Your task to perform on an android device: toggle translation in the chrome app Image 0: 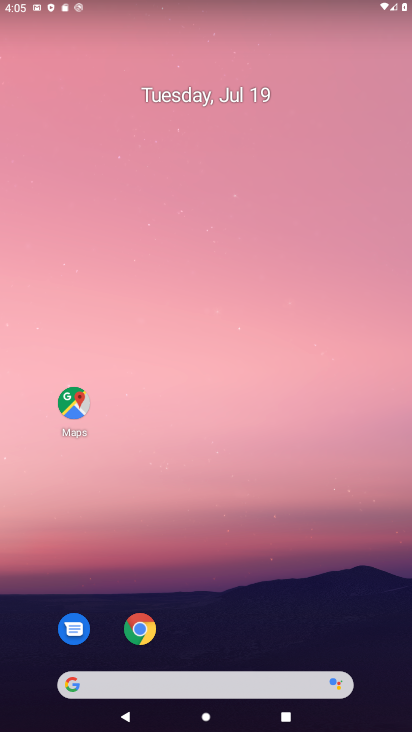
Step 0: drag from (144, 190) to (180, 155)
Your task to perform on an android device: toggle translation in the chrome app Image 1: 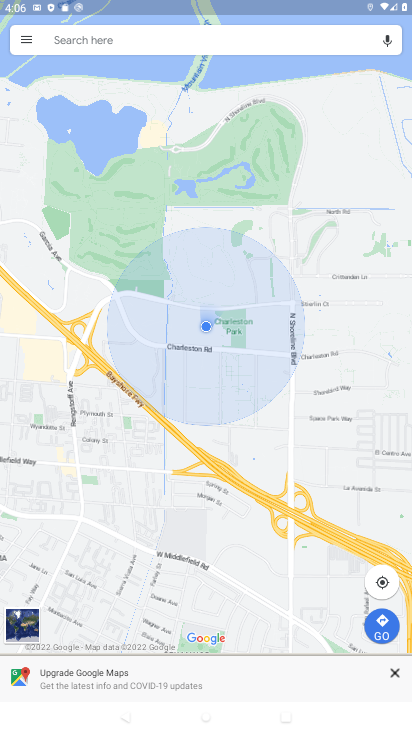
Step 1: press back button
Your task to perform on an android device: toggle translation in the chrome app Image 2: 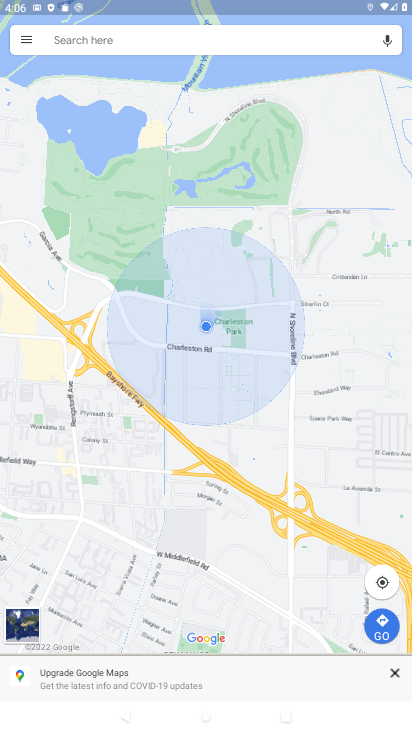
Step 2: press back button
Your task to perform on an android device: toggle translation in the chrome app Image 3: 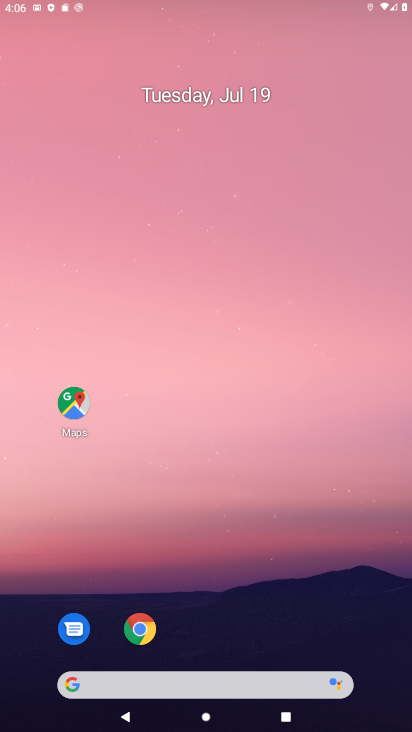
Step 3: press home button
Your task to perform on an android device: toggle translation in the chrome app Image 4: 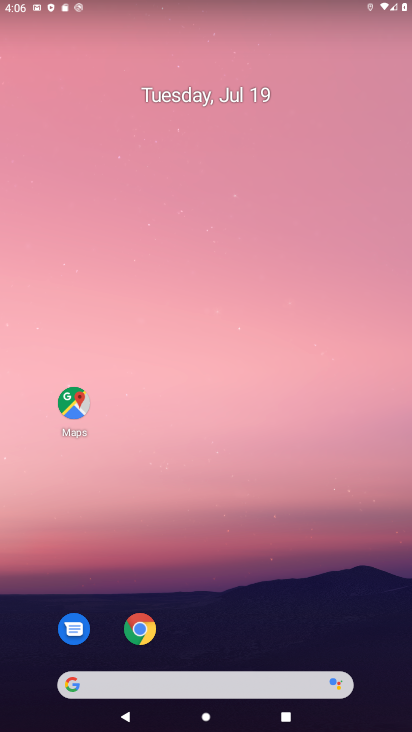
Step 4: press home button
Your task to perform on an android device: toggle translation in the chrome app Image 5: 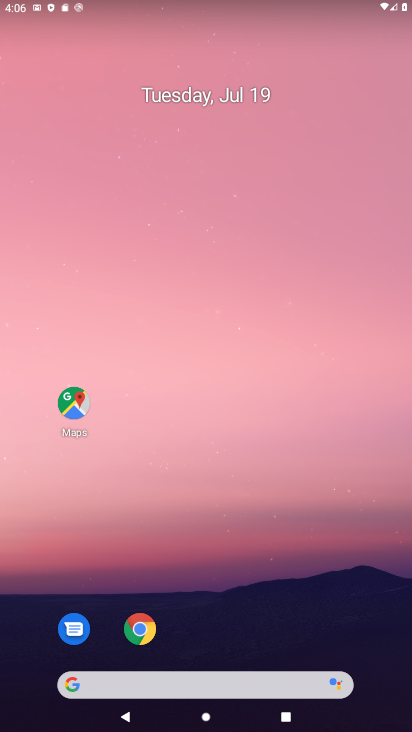
Step 5: drag from (198, 662) to (104, 187)
Your task to perform on an android device: toggle translation in the chrome app Image 6: 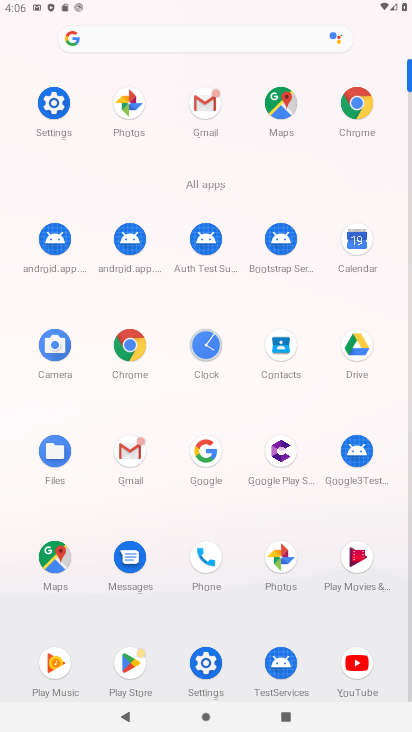
Step 6: click (352, 117)
Your task to perform on an android device: toggle translation in the chrome app Image 7: 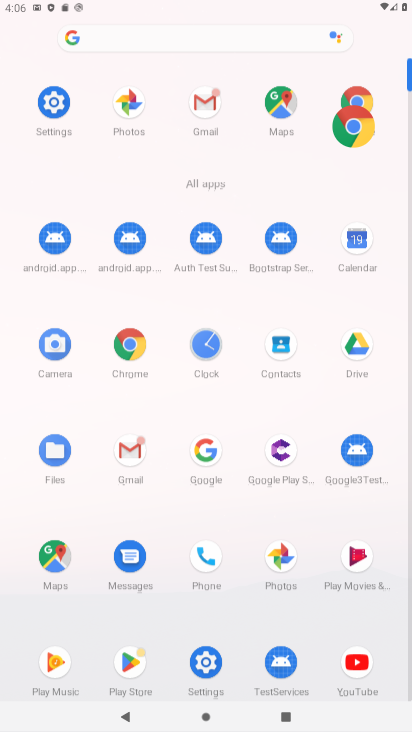
Step 7: click (349, 113)
Your task to perform on an android device: toggle translation in the chrome app Image 8: 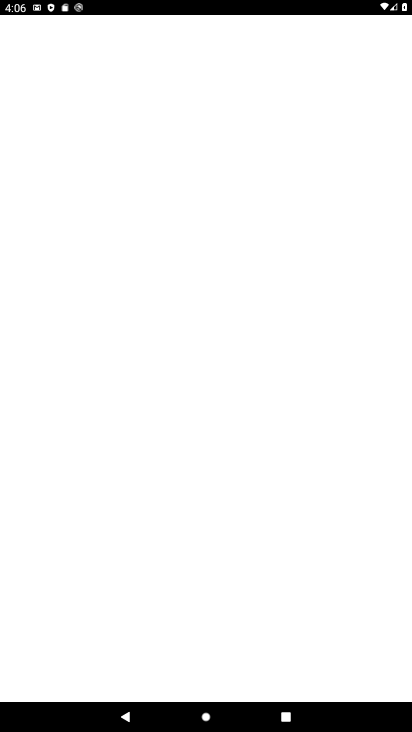
Step 8: click (349, 113)
Your task to perform on an android device: toggle translation in the chrome app Image 9: 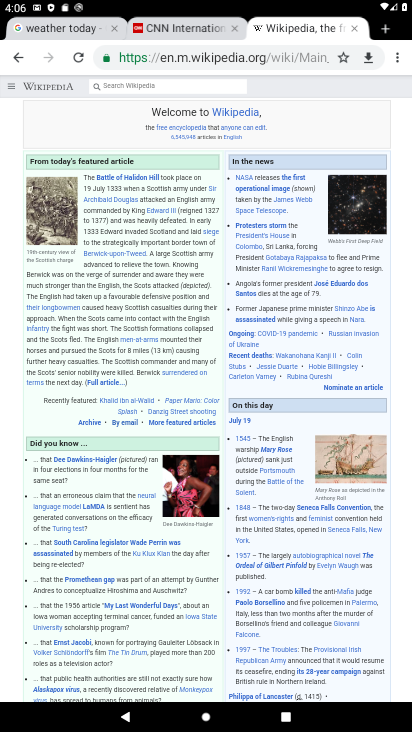
Step 9: drag from (393, 56) to (276, 381)
Your task to perform on an android device: toggle translation in the chrome app Image 10: 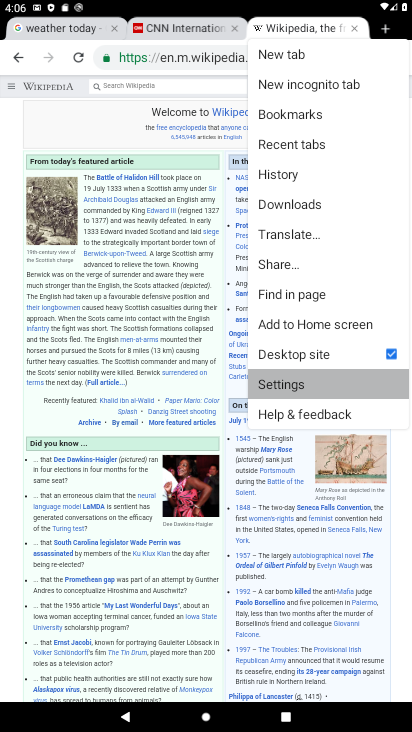
Step 10: click (276, 381)
Your task to perform on an android device: toggle translation in the chrome app Image 11: 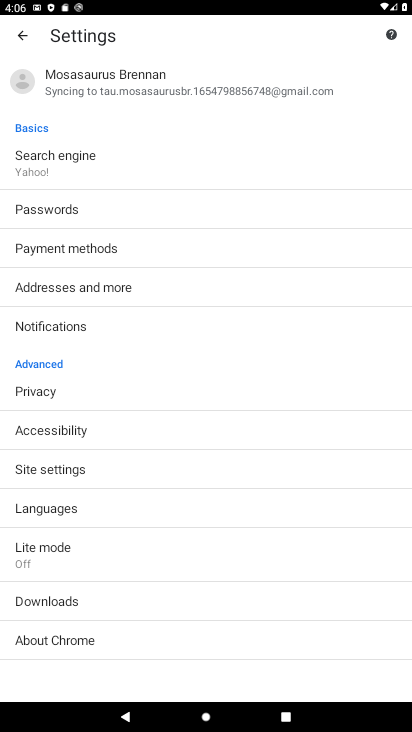
Step 11: click (57, 512)
Your task to perform on an android device: toggle translation in the chrome app Image 12: 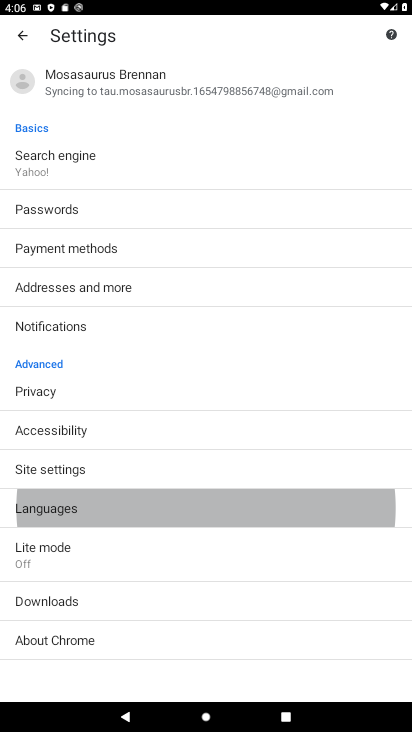
Step 12: click (57, 512)
Your task to perform on an android device: toggle translation in the chrome app Image 13: 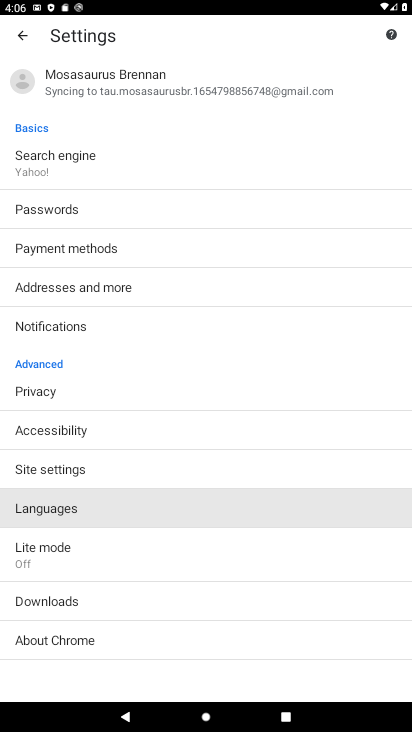
Step 13: click (57, 512)
Your task to perform on an android device: toggle translation in the chrome app Image 14: 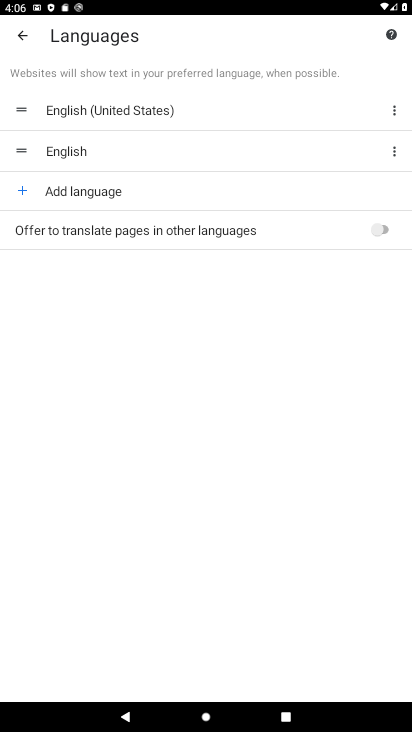
Step 14: click (370, 231)
Your task to perform on an android device: toggle translation in the chrome app Image 15: 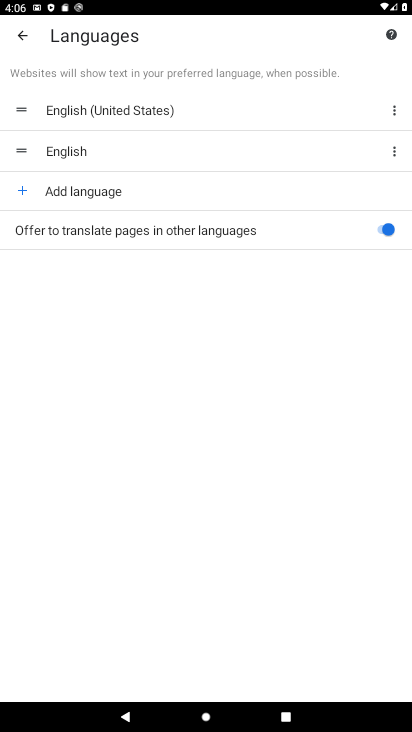
Step 15: task complete